Your task to perform on an android device: Find coffee shops on Maps Image 0: 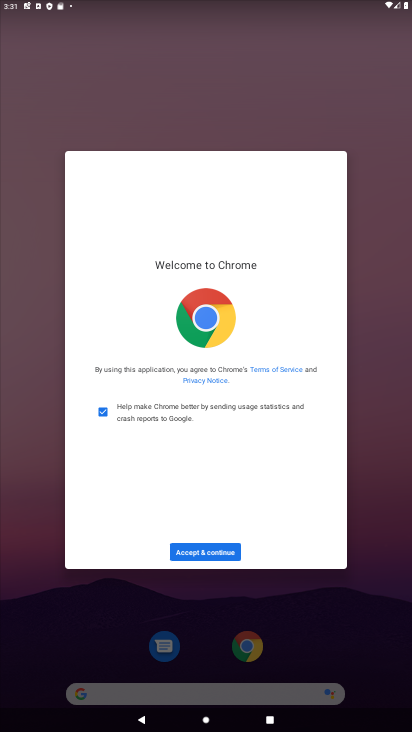
Step 0: press home button
Your task to perform on an android device: Find coffee shops on Maps Image 1: 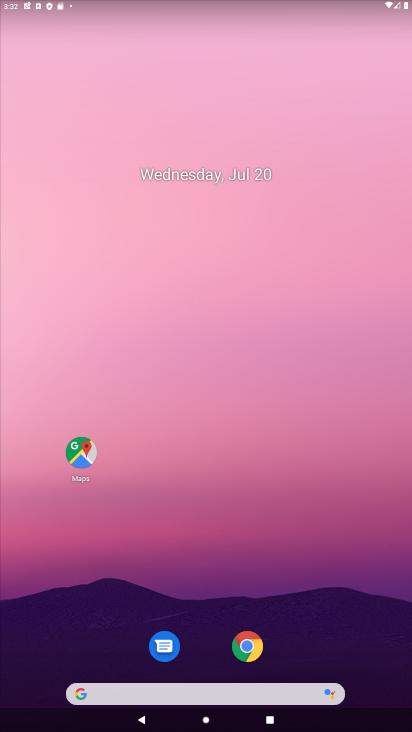
Step 1: click (70, 464)
Your task to perform on an android device: Find coffee shops on Maps Image 2: 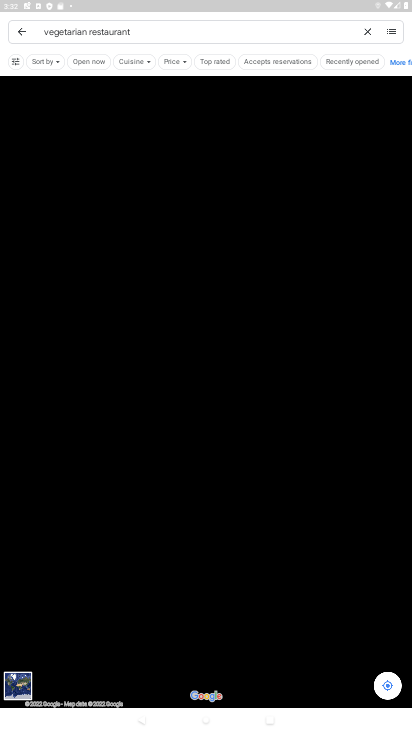
Step 2: click (150, 24)
Your task to perform on an android device: Find coffee shops on Maps Image 3: 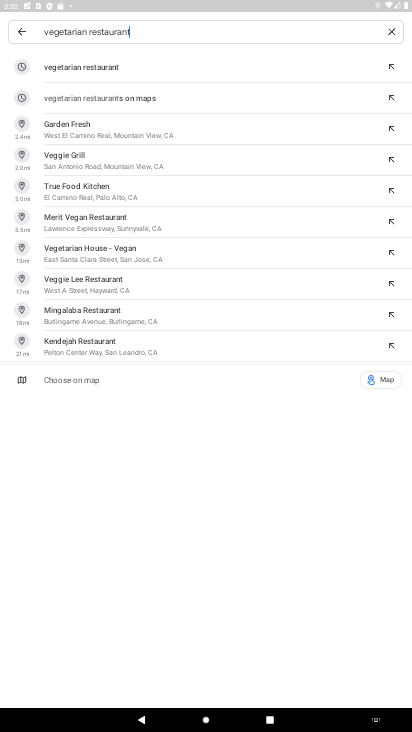
Step 3: click (395, 27)
Your task to perform on an android device: Find coffee shops on Maps Image 4: 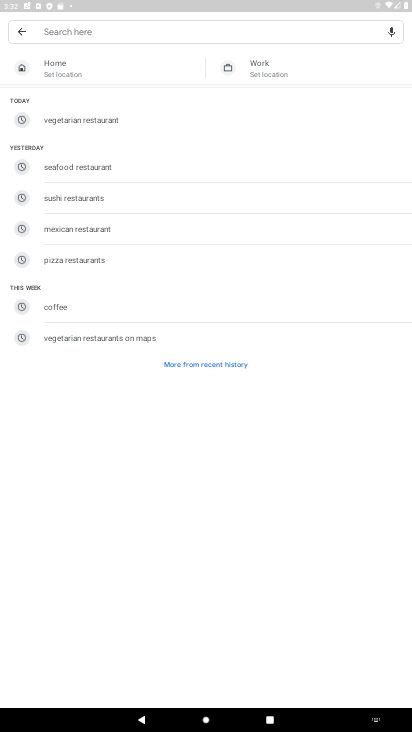
Step 4: type "coffee shops"
Your task to perform on an android device: Find coffee shops on Maps Image 5: 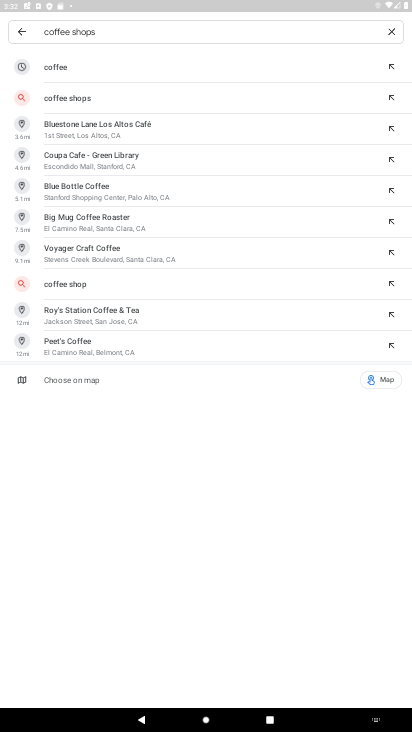
Step 5: click (105, 94)
Your task to perform on an android device: Find coffee shops on Maps Image 6: 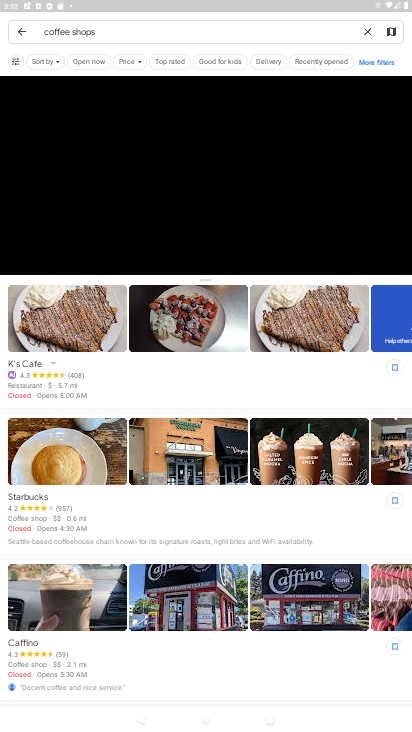
Step 6: task complete